Your task to perform on an android device: How big is a lion? Image 0: 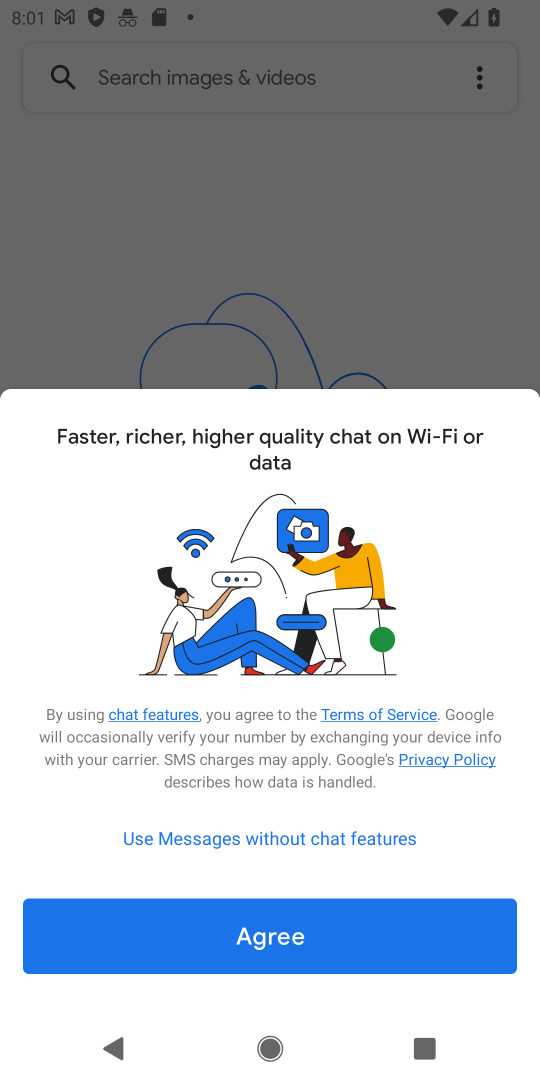
Step 0: press home button
Your task to perform on an android device: How big is a lion? Image 1: 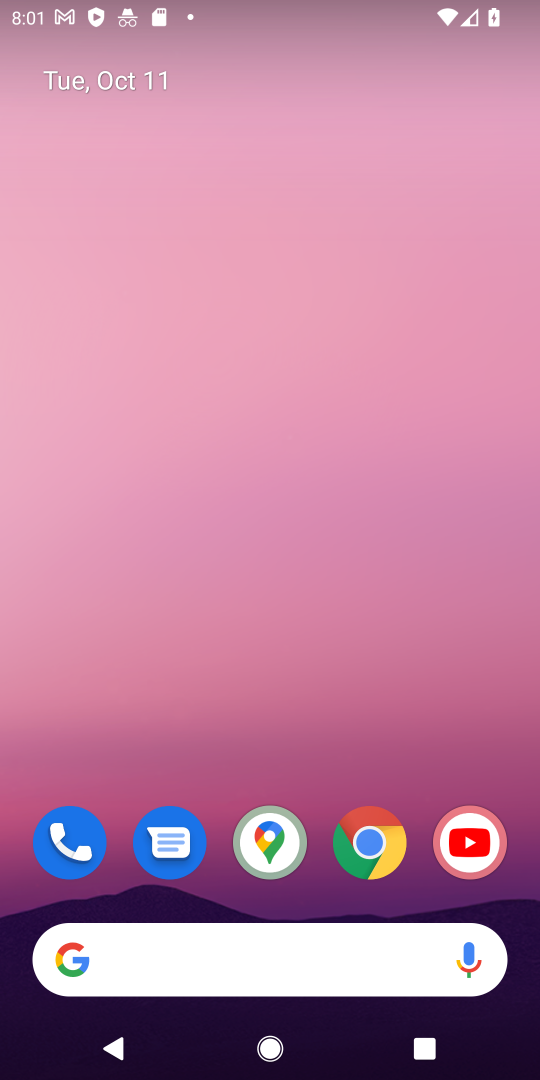
Step 1: drag from (261, 392) to (269, 311)
Your task to perform on an android device: How big is a lion? Image 2: 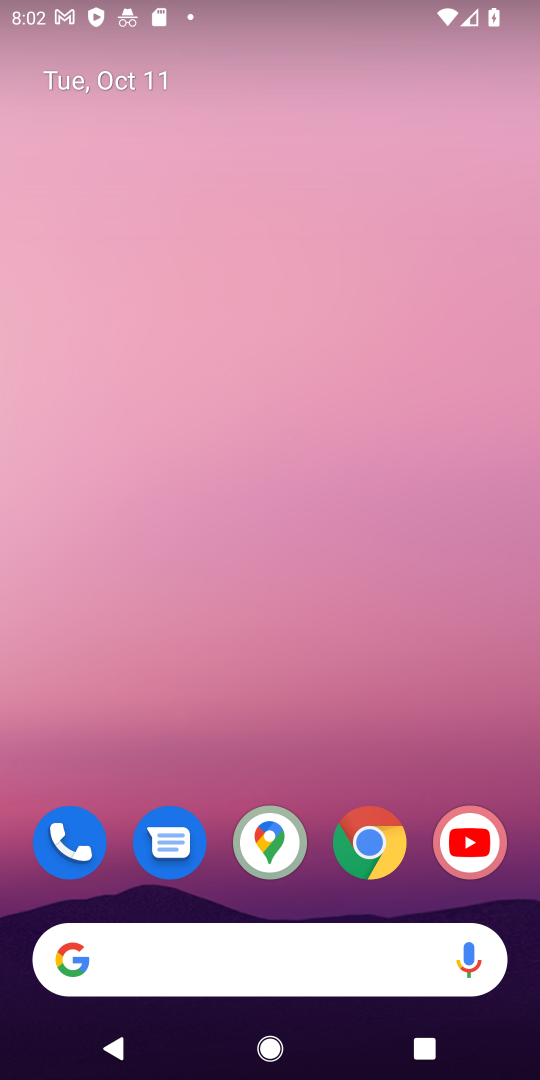
Step 2: drag from (229, 532) to (321, 87)
Your task to perform on an android device: How big is a lion? Image 3: 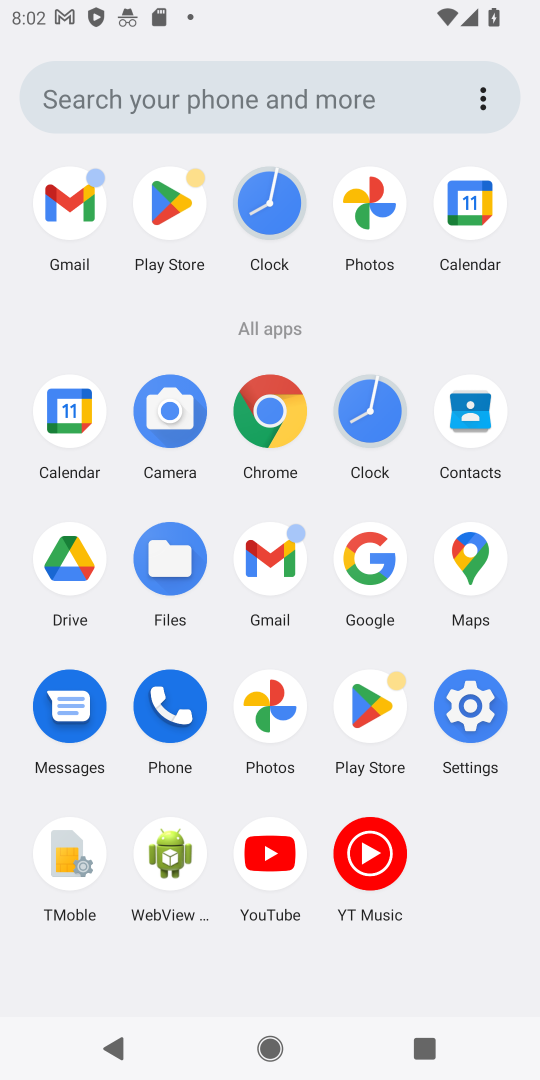
Step 3: click (379, 567)
Your task to perform on an android device: How big is a lion? Image 4: 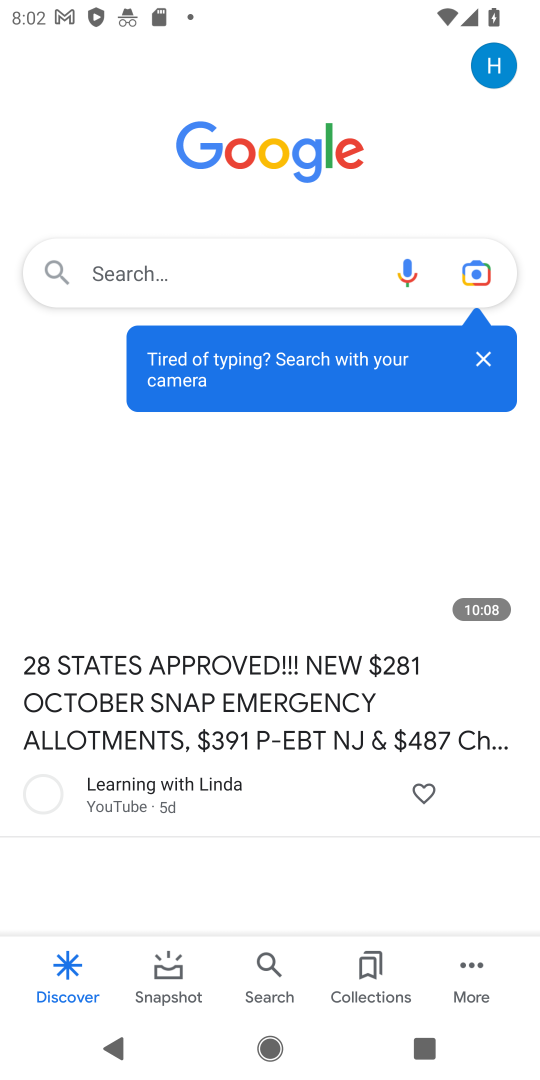
Step 4: click (379, 567)
Your task to perform on an android device: How big is a lion? Image 5: 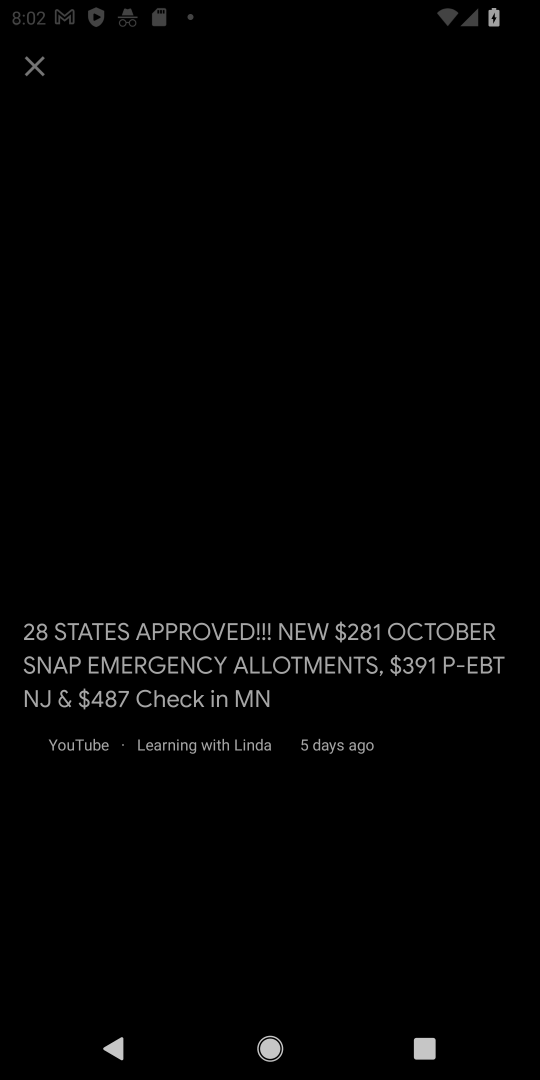
Step 5: click (199, 269)
Your task to perform on an android device: How big is a lion? Image 6: 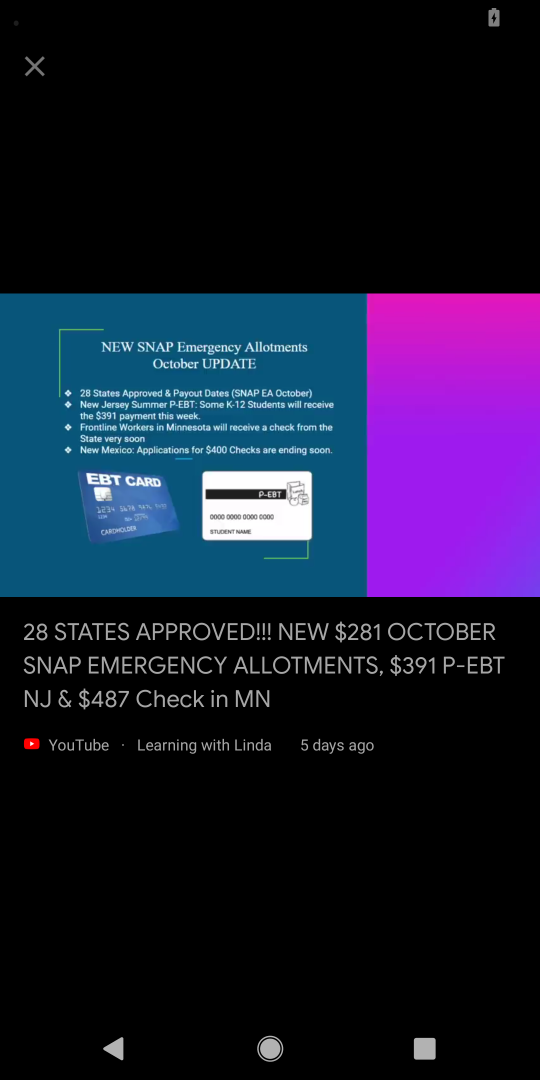
Step 6: click (29, 65)
Your task to perform on an android device: How big is a lion? Image 7: 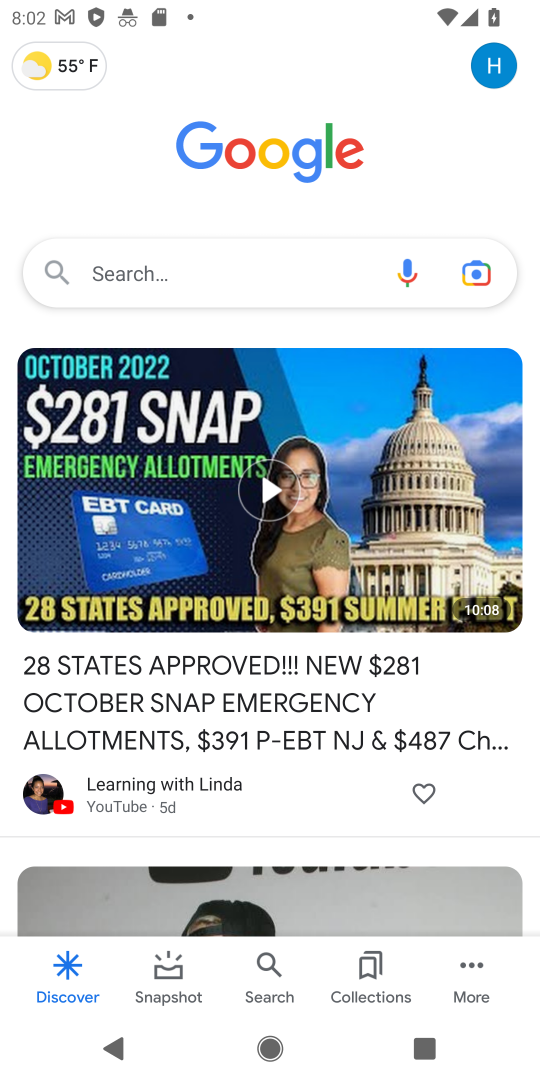
Step 7: click (278, 263)
Your task to perform on an android device: How big is a lion? Image 8: 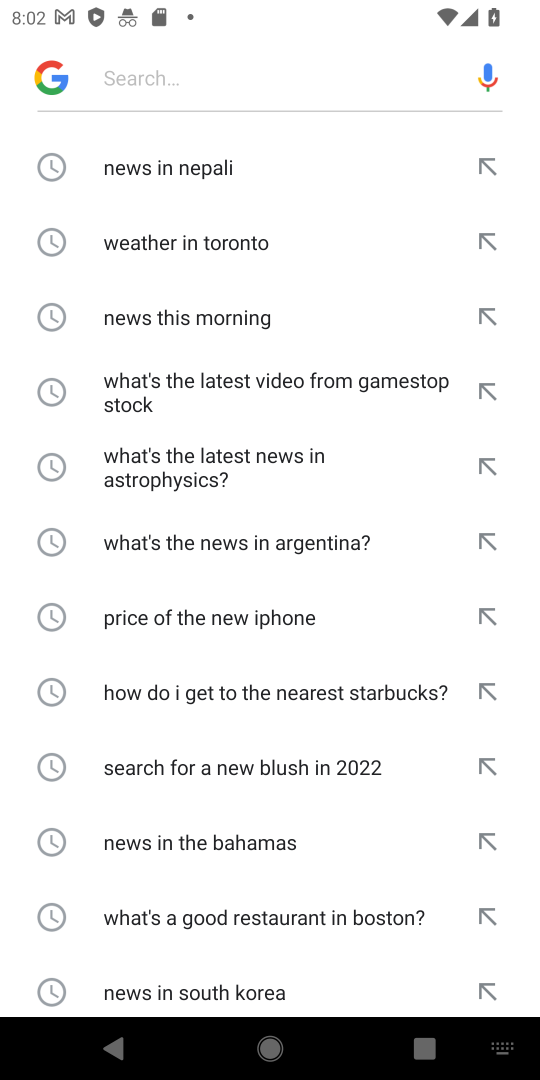
Step 8: type "How big is a lion?"
Your task to perform on an android device: How big is a lion? Image 9: 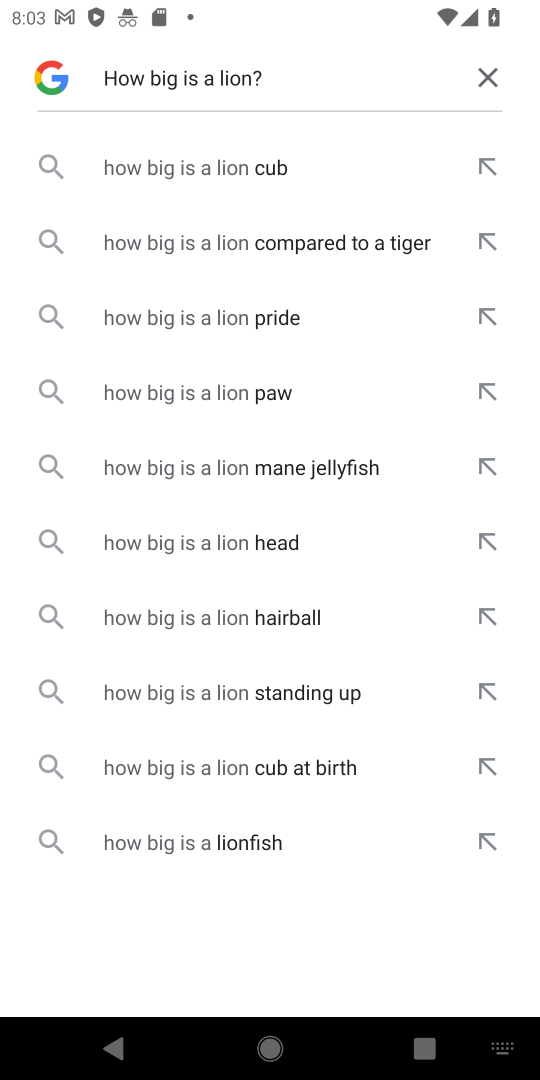
Step 9: click (217, 170)
Your task to perform on an android device: How big is a lion? Image 10: 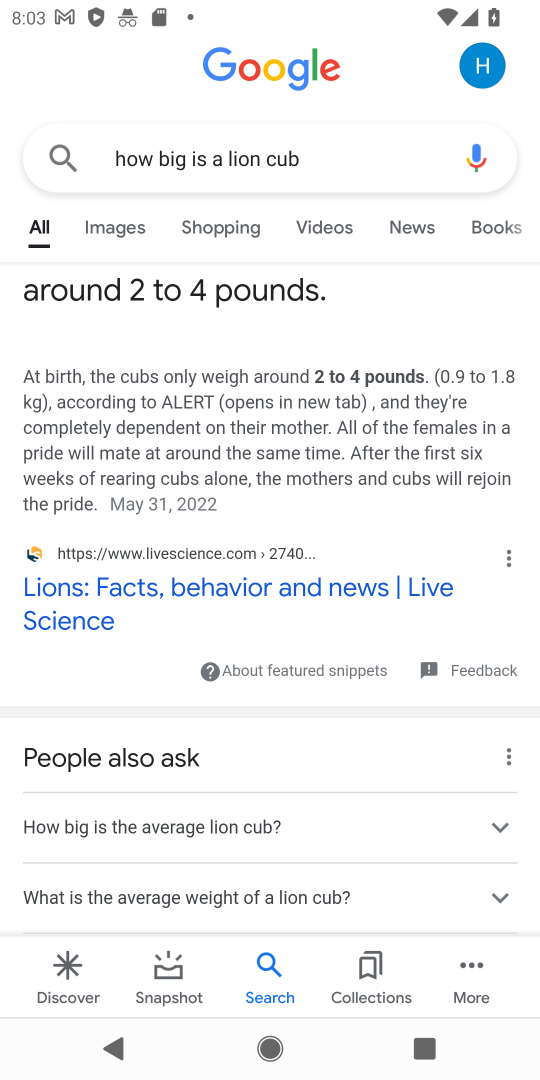
Step 10: click (338, 153)
Your task to perform on an android device: How big is a lion? Image 11: 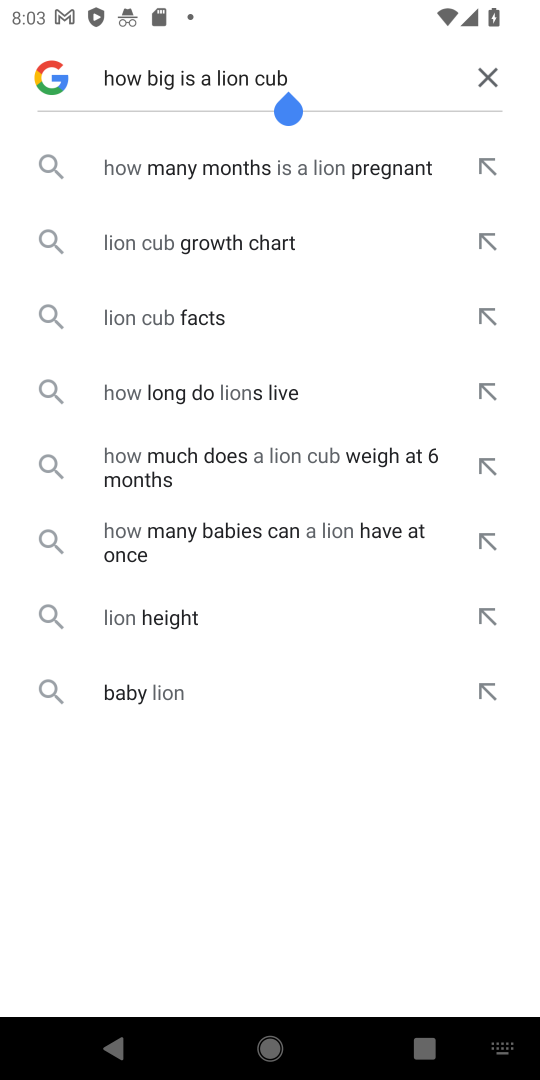
Step 11: click (273, 77)
Your task to perform on an android device: How big is a lion? Image 12: 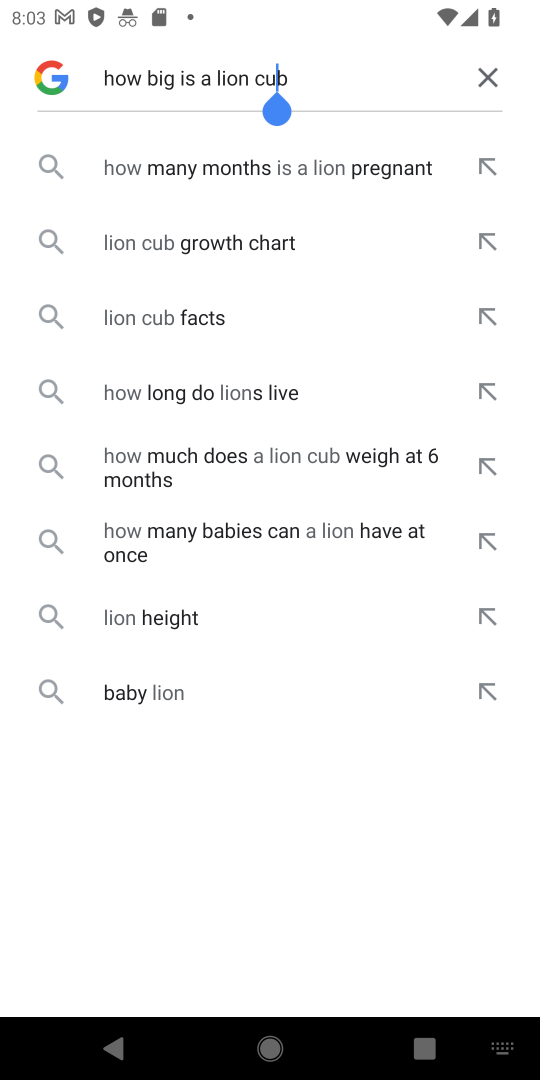
Step 12: click (273, 77)
Your task to perform on an android device: How big is a lion? Image 13: 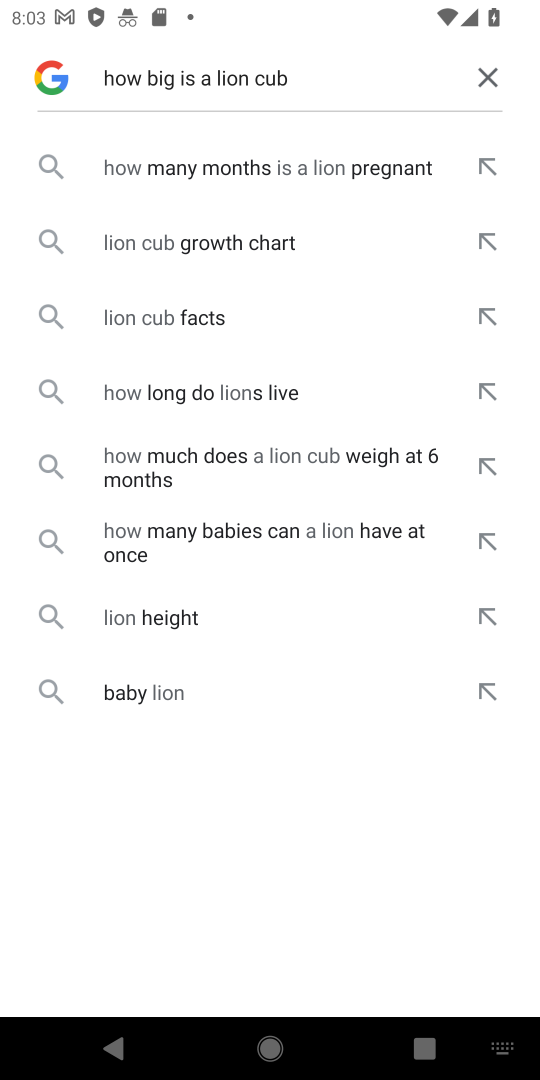
Step 13: click (309, 77)
Your task to perform on an android device: How big is a lion? Image 14: 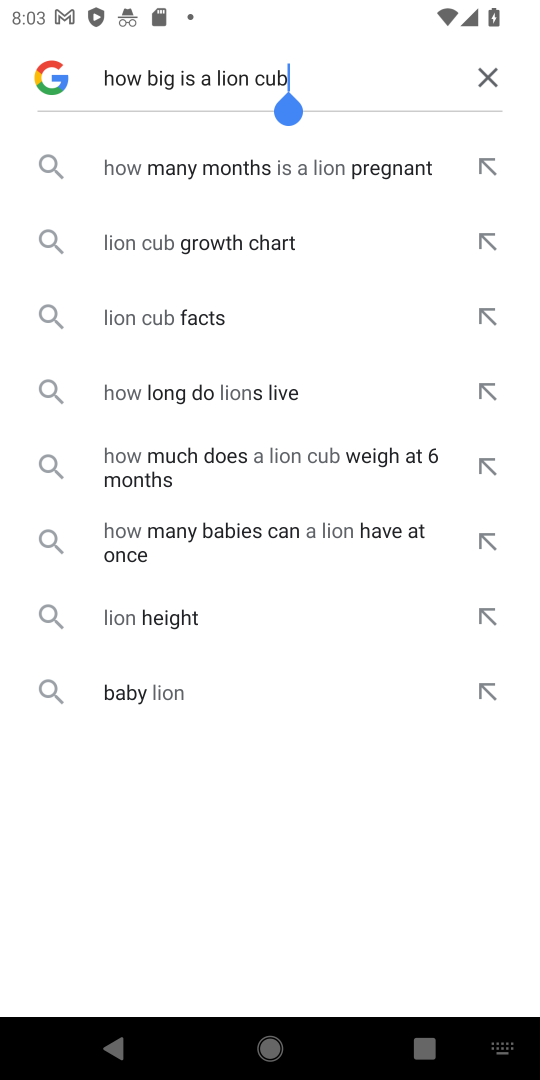
Step 14: click (324, 65)
Your task to perform on an android device: How big is a lion? Image 15: 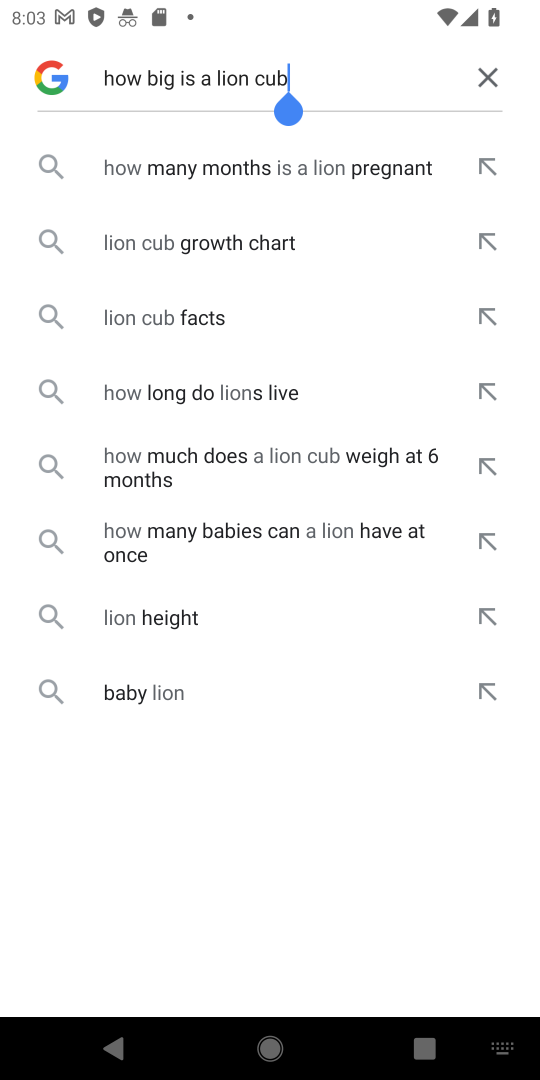
Step 15: click (316, 65)
Your task to perform on an android device: How big is a lion? Image 16: 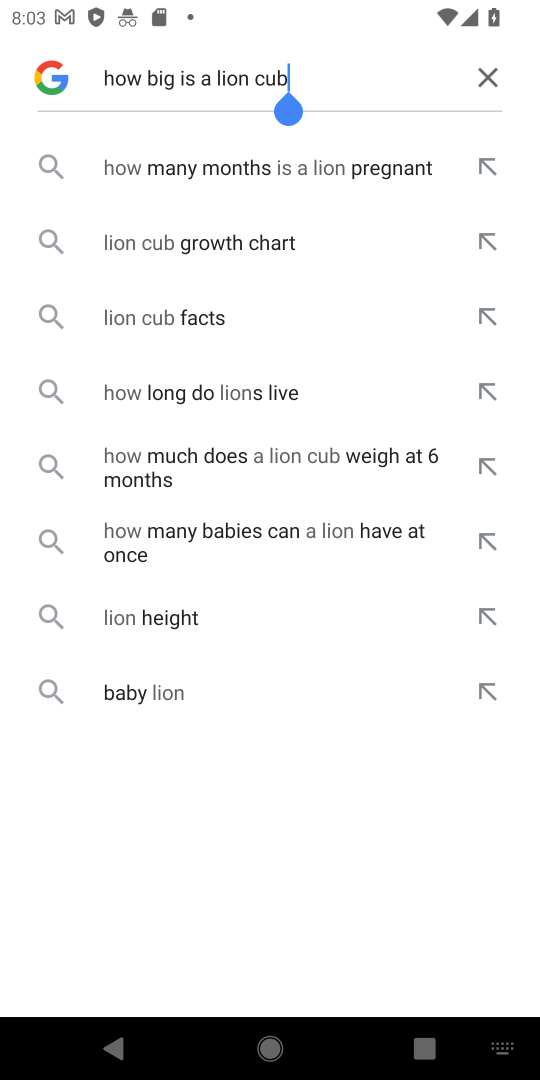
Step 16: click (489, 74)
Your task to perform on an android device: How big is a lion? Image 17: 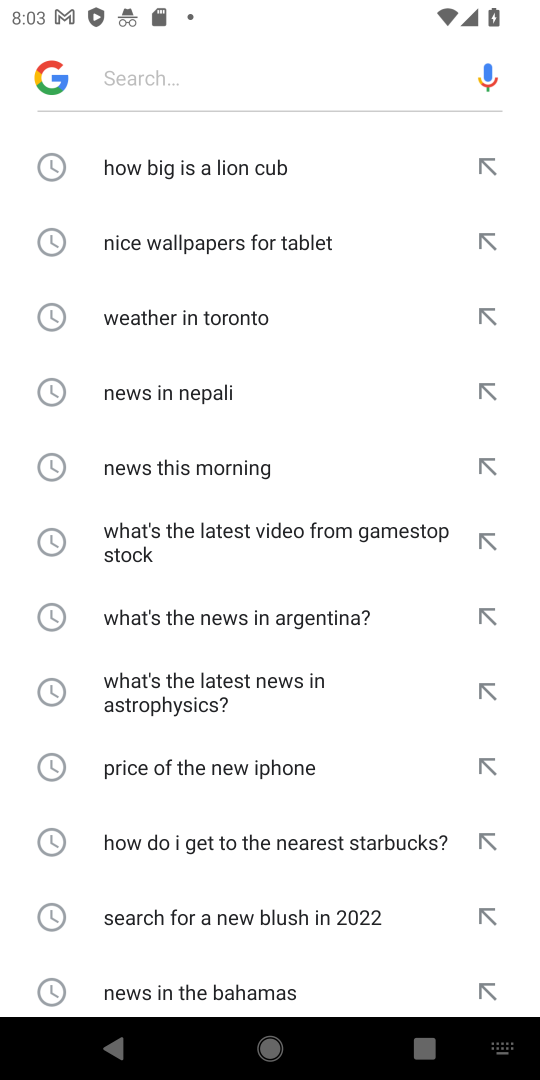
Step 17: type "how big is a ion"
Your task to perform on an android device: How big is a lion? Image 18: 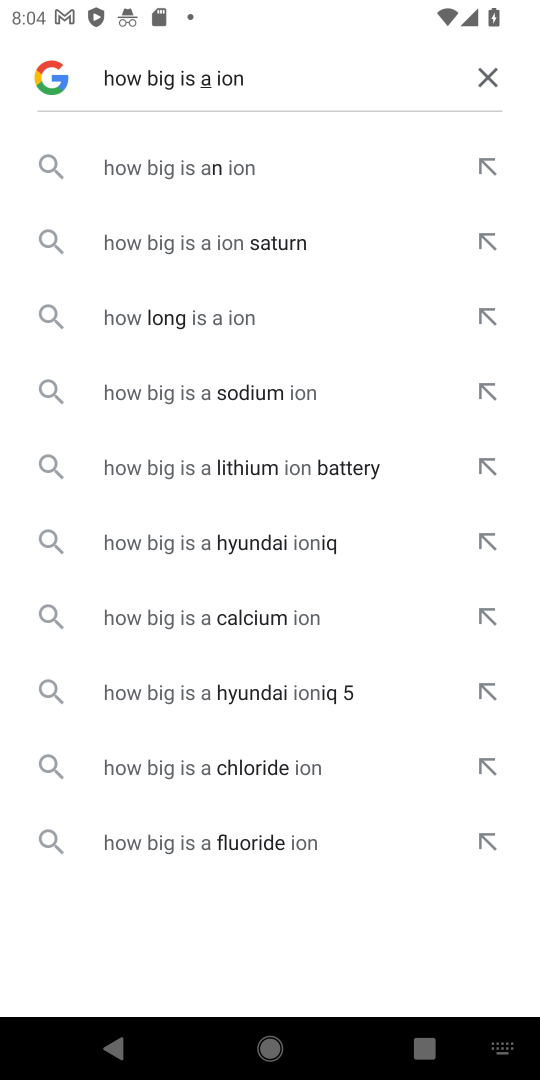
Step 18: click (260, 180)
Your task to perform on an android device: How big is a lion? Image 19: 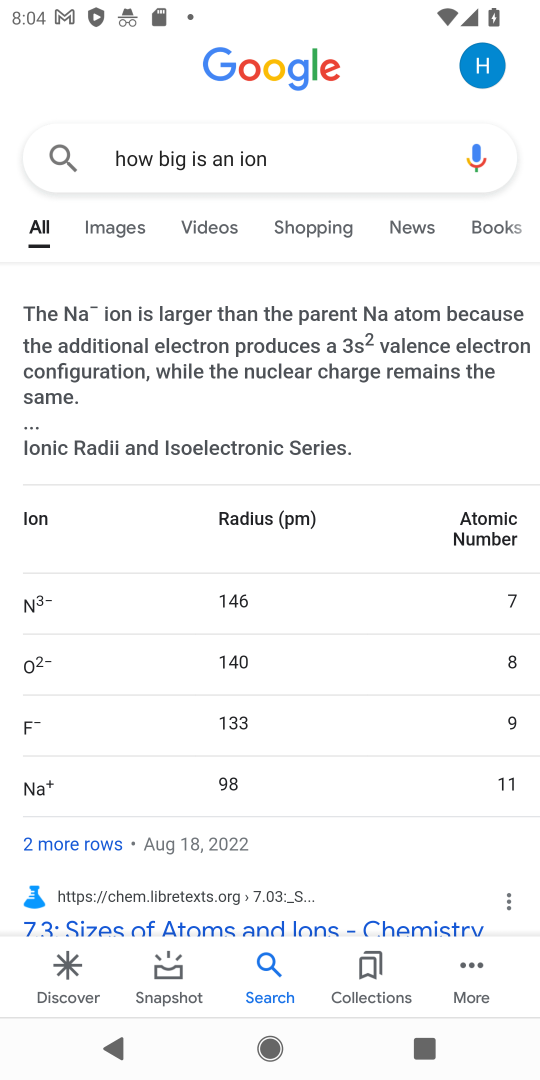
Step 19: click (243, 160)
Your task to perform on an android device: How big is a lion? Image 20: 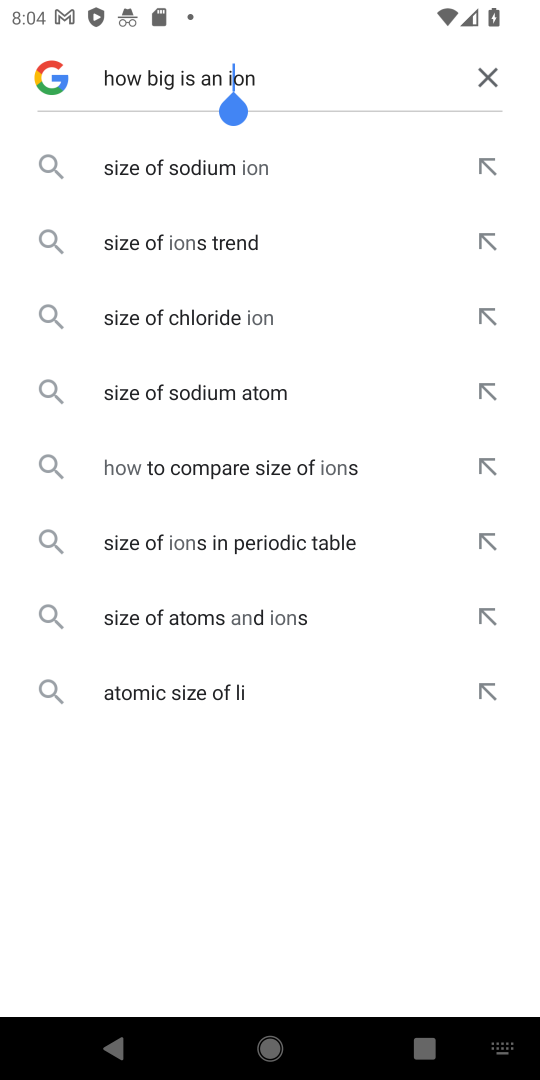
Step 20: click (229, 82)
Your task to perform on an android device: How big is a lion? Image 21: 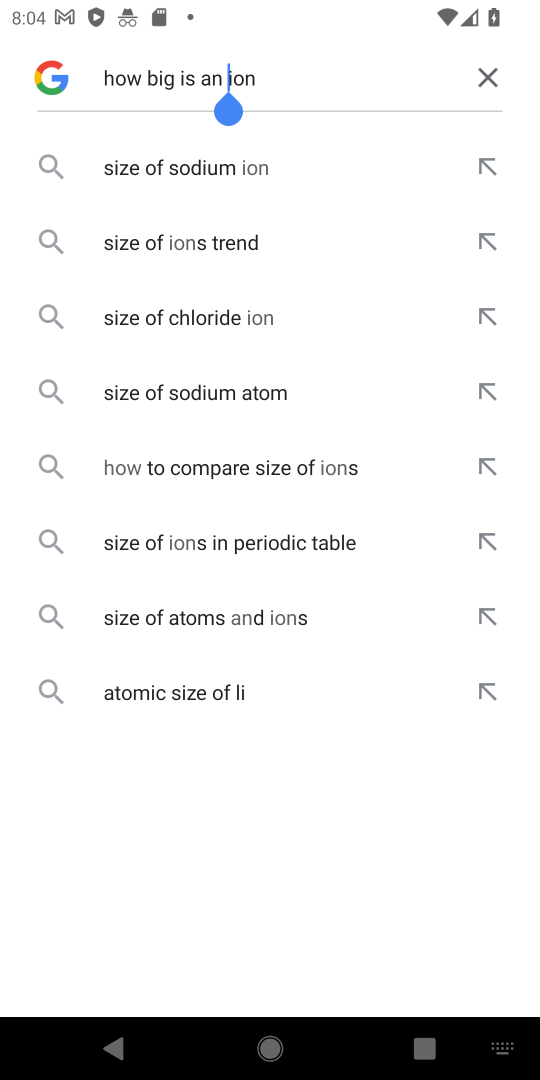
Step 21: click (223, 81)
Your task to perform on an android device: How big is a lion? Image 22: 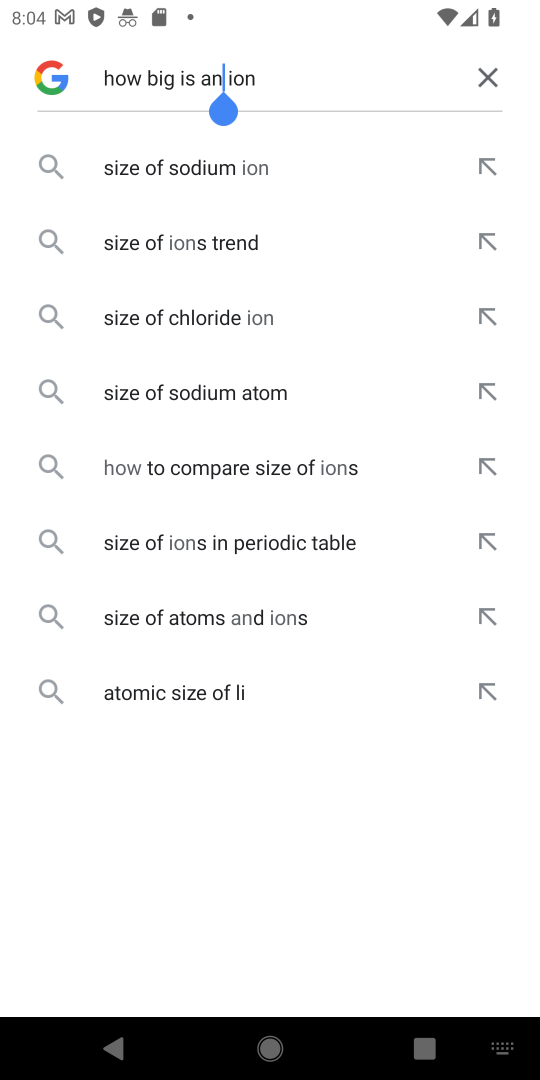
Step 22: type "l"
Your task to perform on an android device: How big is a lion? Image 23: 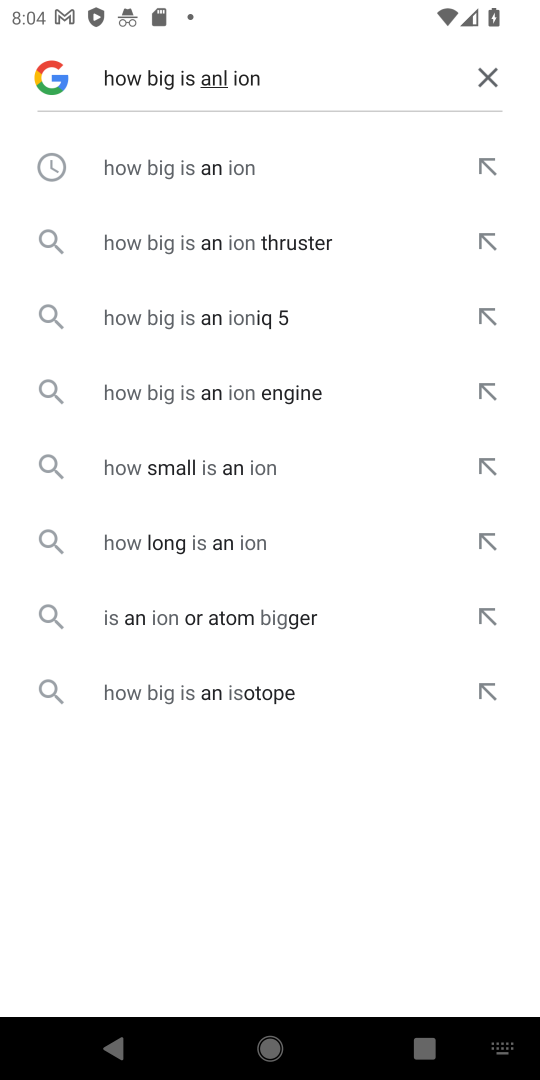
Step 23: click (484, 79)
Your task to perform on an android device: How big is a lion? Image 24: 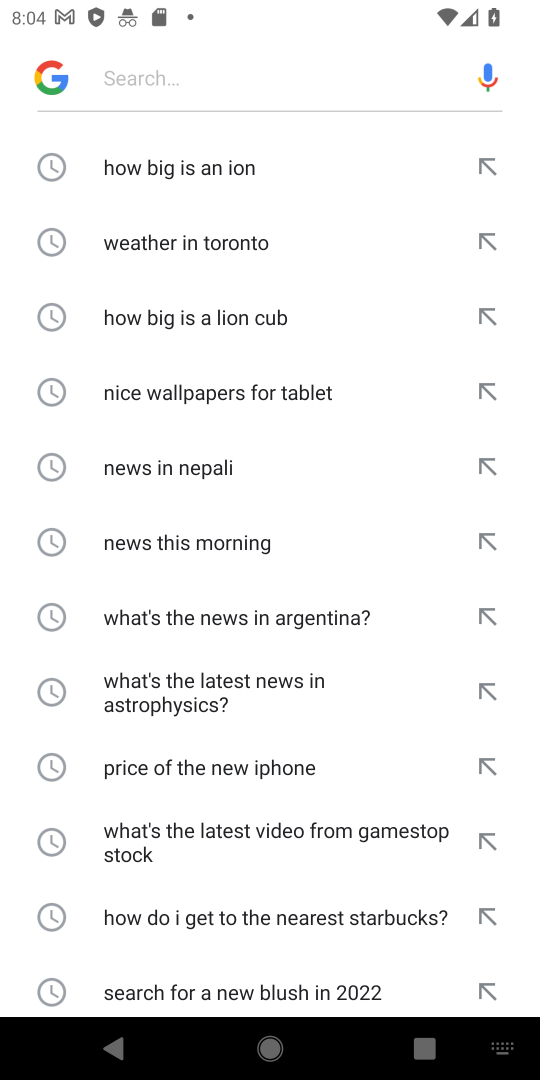
Step 24: type "How big is a lion"
Your task to perform on an android device: How big is a lion? Image 25: 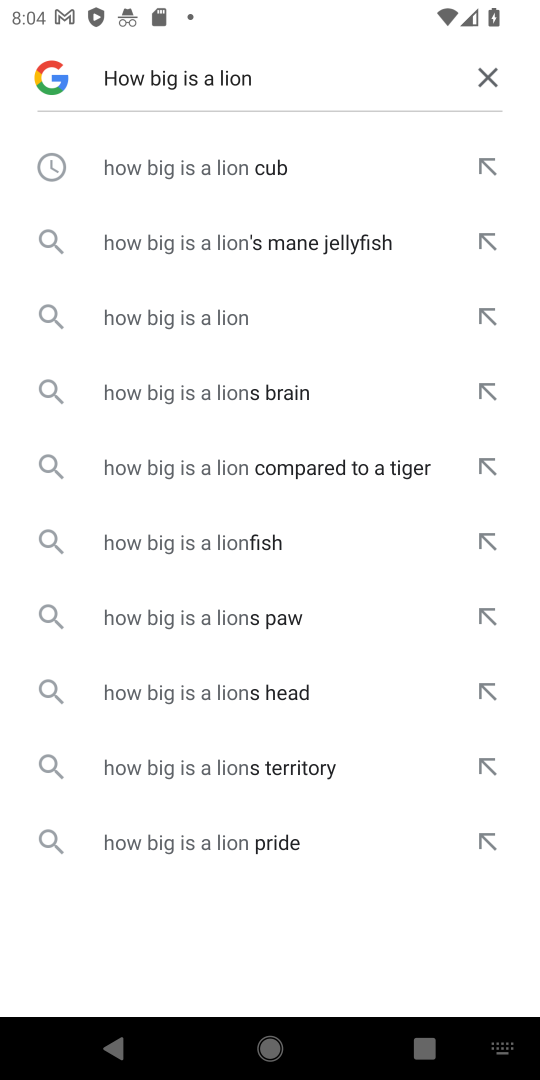
Step 25: click (253, 323)
Your task to perform on an android device: How big is a lion? Image 26: 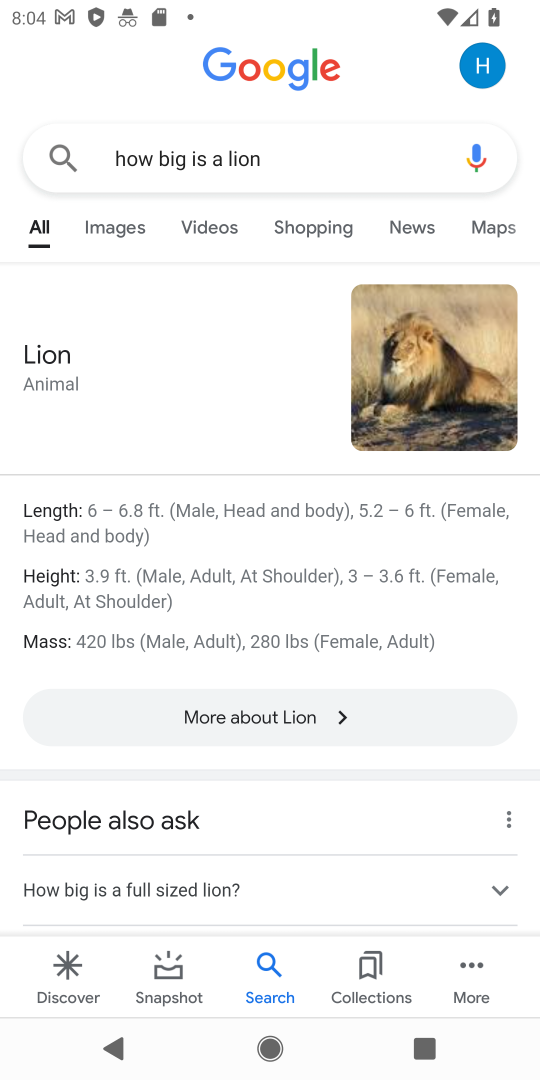
Step 26: task complete